Your task to perform on an android device: Go to Wikipedia Image 0: 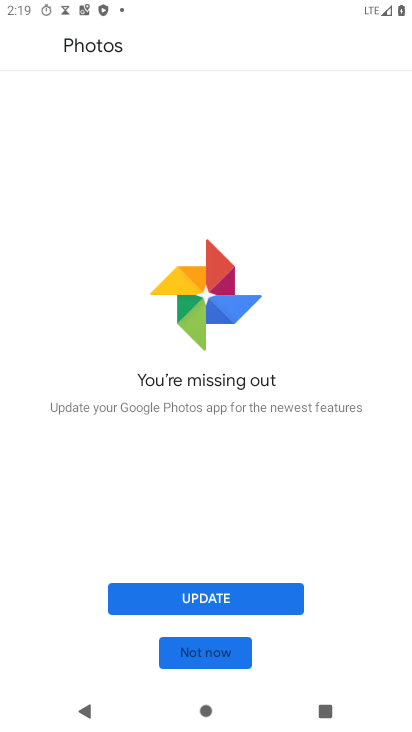
Step 0: press back button
Your task to perform on an android device: Go to Wikipedia Image 1: 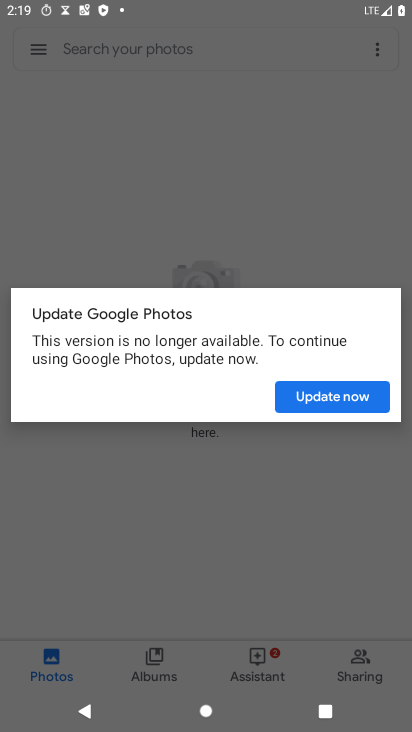
Step 1: press home button
Your task to perform on an android device: Go to Wikipedia Image 2: 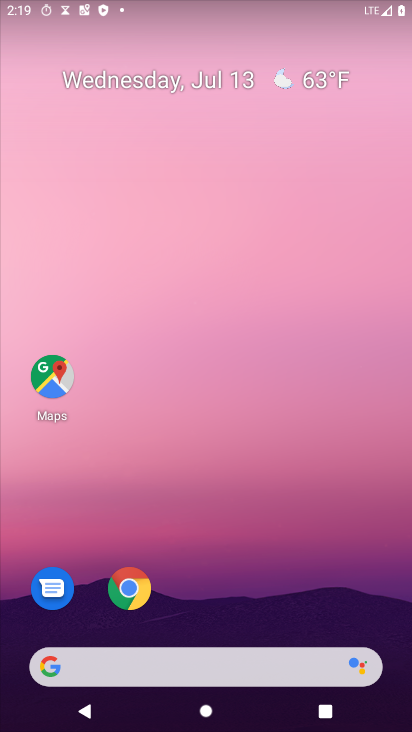
Step 2: click (116, 590)
Your task to perform on an android device: Go to Wikipedia Image 3: 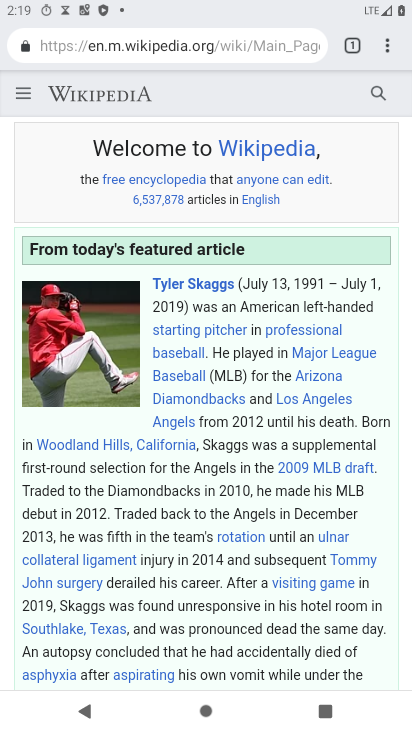
Step 3: task complete